Your task to perform on an android device: toggle javascript in the chrome app Image 0: 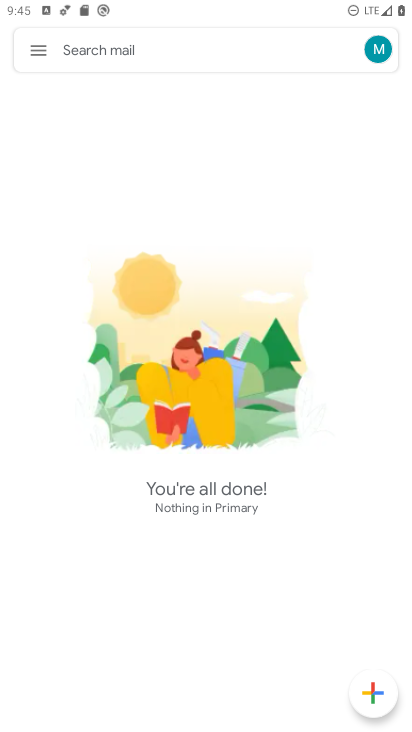
Step 0: press home button
Your task to perform on an android device: toggle javascript in the chrome app Image 1: 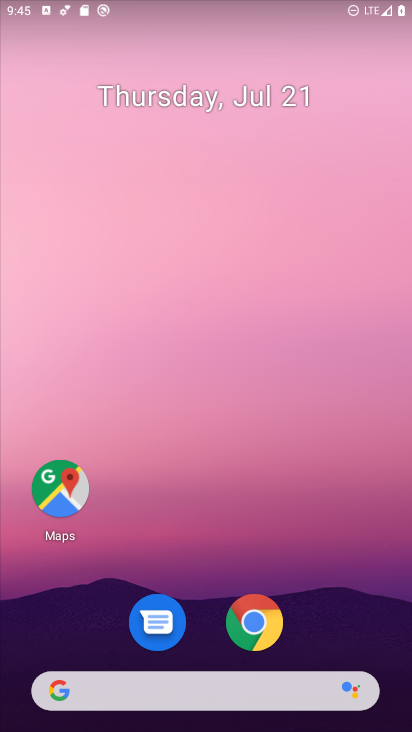
Step 1: click (268, 611)
Your task to perform on an android device: toggle javascript in the chrome app Image 2: 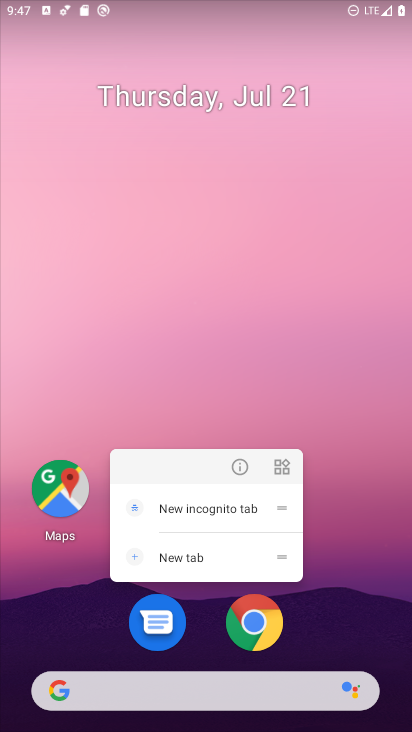
Step 2: click (264, 629)
Your task to perform on an android device: toggle javascript in the chrome app Image 3: 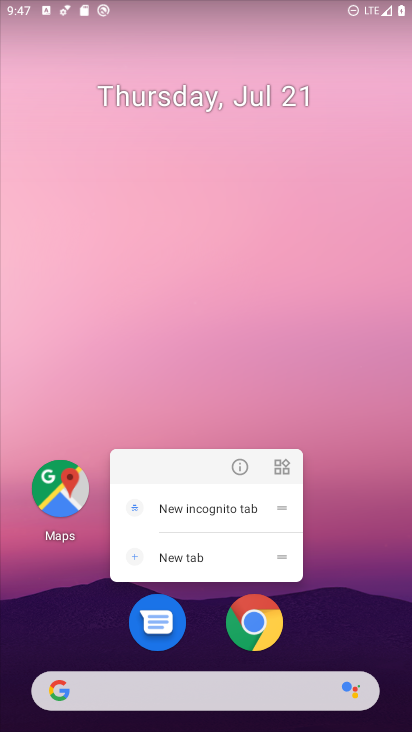
Step 3: click (264, 629)
Your task to perform on an android device: toggle javascript in the chrome app Image 4: 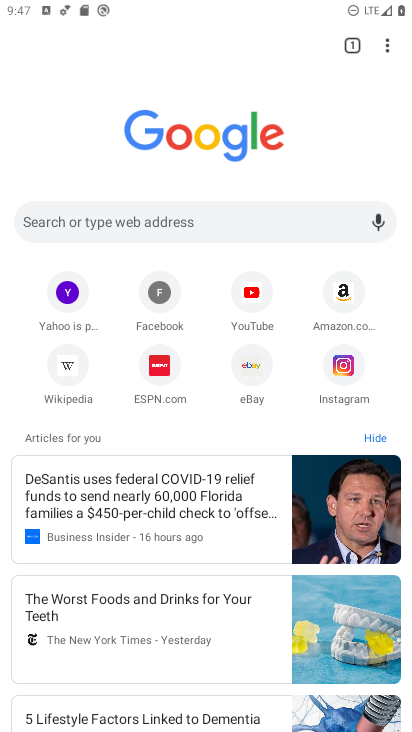
Step 4: click (389, 39)
Your task to perform on an android device: toggle javascript in the chrome app Image 5: 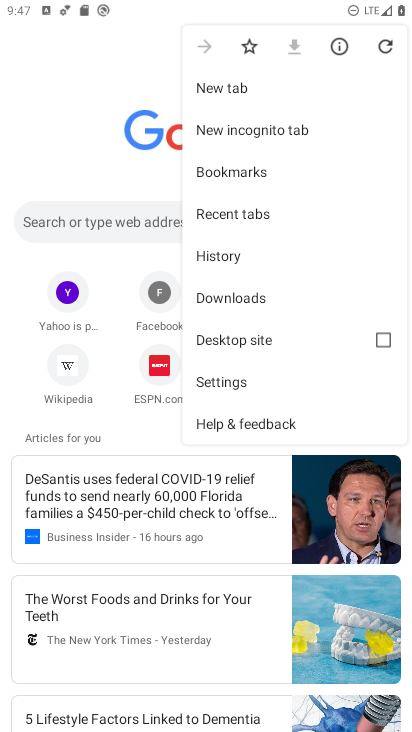
Step 5: click (249, 382)
Your task to perform on an android device: toggle javascript in the chrome app Image 6: 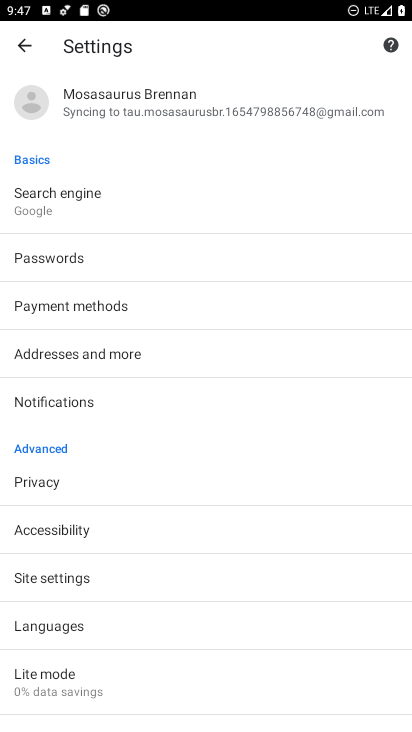
Step 6: click (64, 579)
Your task to perform on an android device: toggle javascript in the chrome app Image 7: 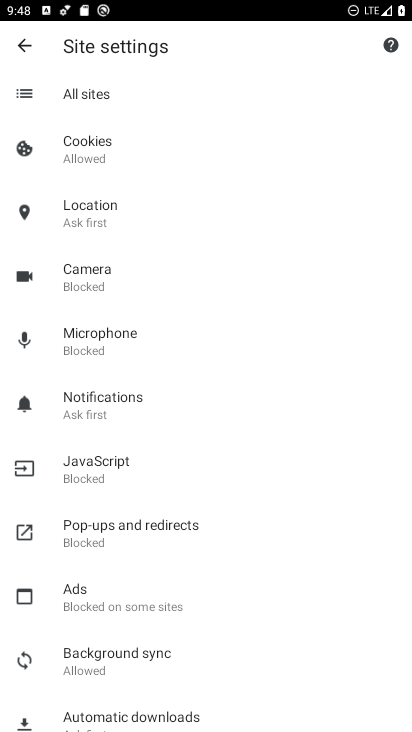
Step 7: click (97, 467)
Your task to perform on an android device: toggle javascript in the chrome app Image 8: 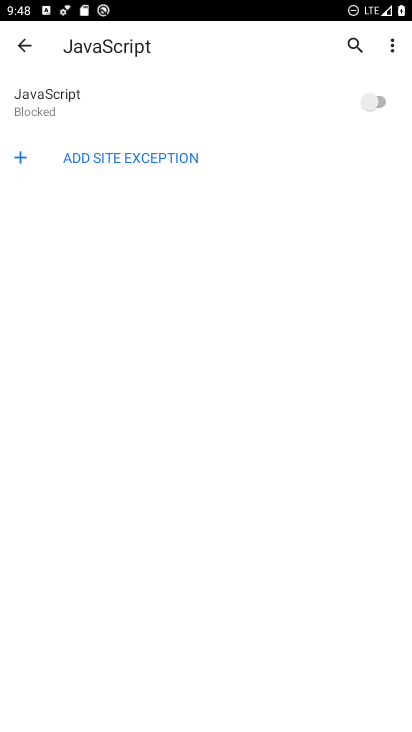
Step 8: click (373, 95)
Your task to perform on an android device: toggle javascript in the chrome app Image 9: 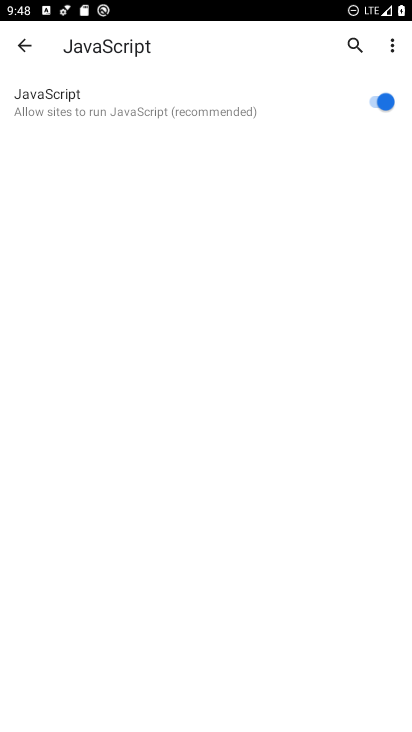
Step 9: task complete